Your task to perform on an android device: Go to wifi settings Image 0: 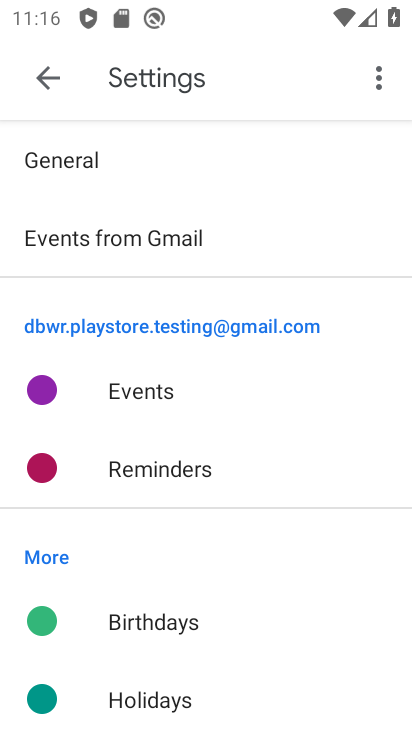
Step 0: press home button
Your task to perform on an android device: Go to wifi settings Image 1: 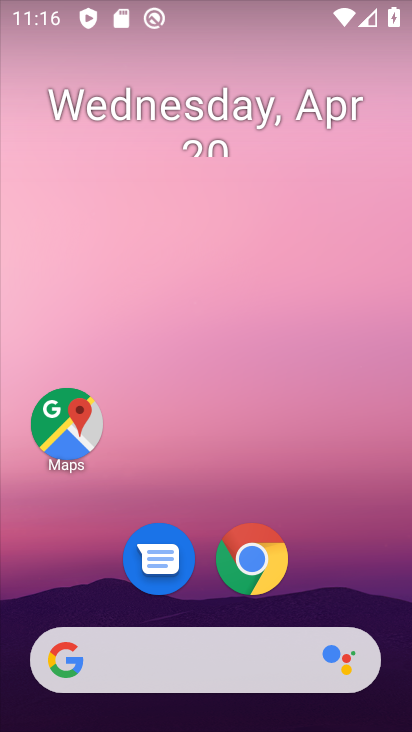
Step 1: drag from (284, 303) to (258, 0)
Your task to perform on an android device: Go to wifi settings Image 2: 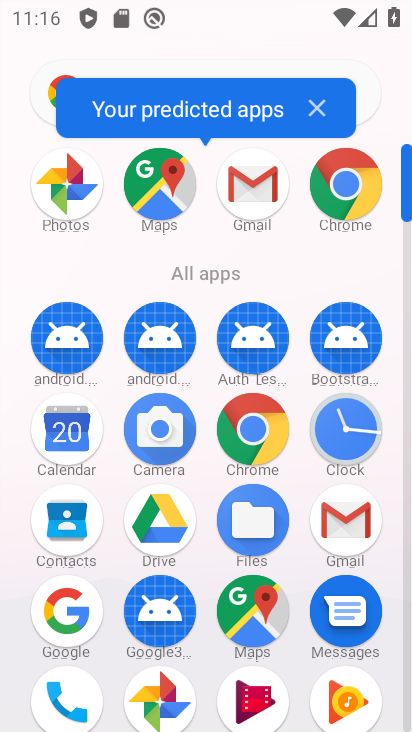
Step 2: drag from (218, 469) to (218, 175)
Your task to perform on an android device: Go to wifi settings Image 3: 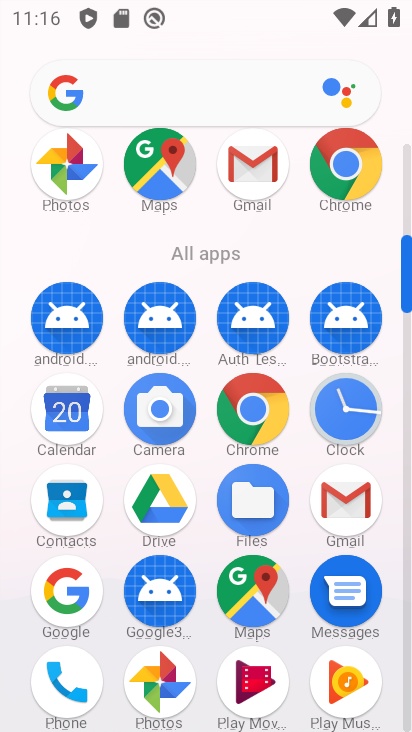
Step 3: drag from (205, 595) to (204, 225)
Your task to perform on an android device: Go to wifi settings Image 4: 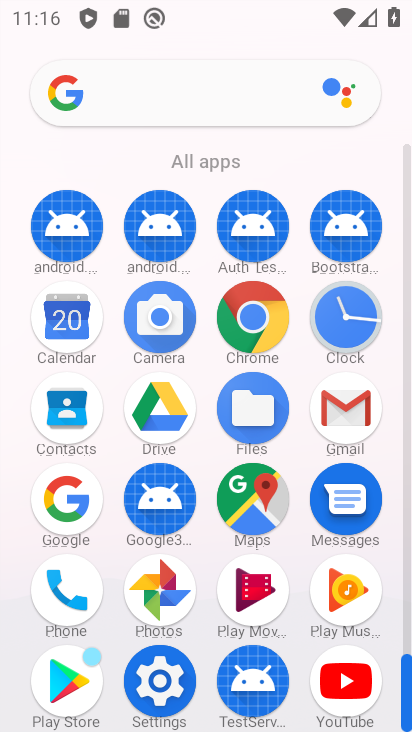
Step 4: click (164, 689)
Your task to perform on an android device: Go to wifi settings Image 5: 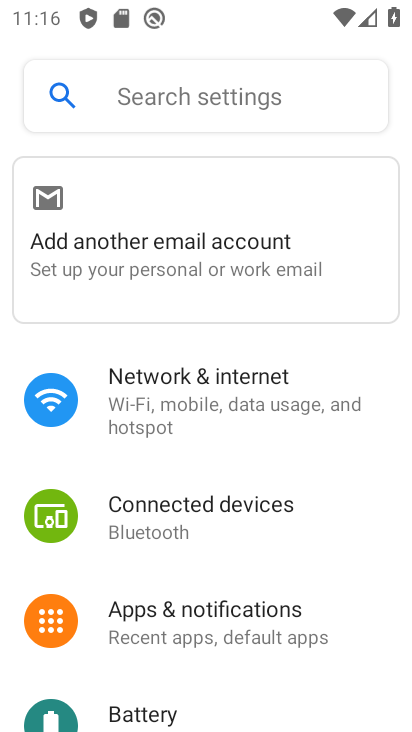
Step 5: click (200, 410)
Your task to perform on an android device: Go to wifi settings Image 6: 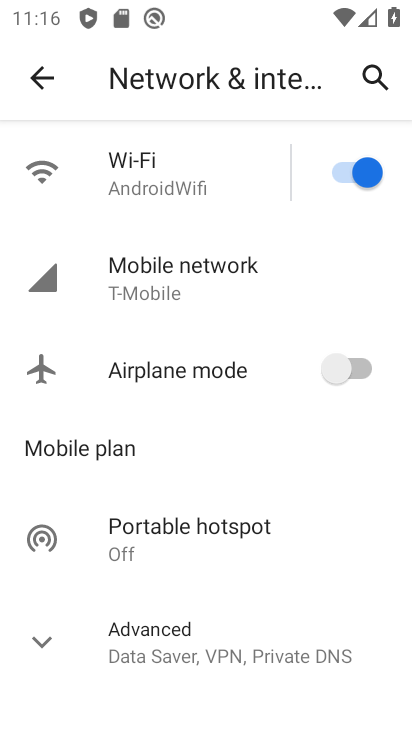
Step 6: click (157, 165)
Your task to perform on an android device: Go to wifi settings Image 7: 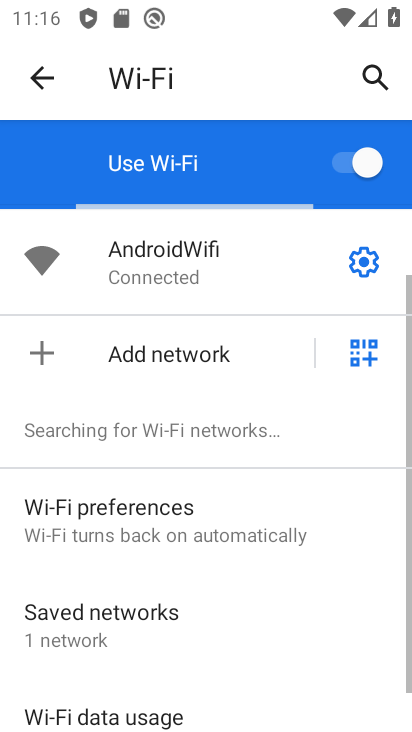
Step 7: task complete